Your task to perform on an android device: change the clock display to show seconds Image 0: 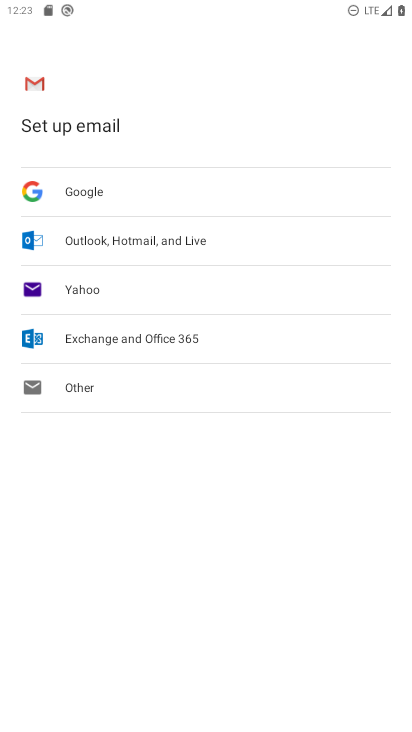
Step 0: press home button
Your task to perform on an android device: change the clock display to show seconds Image 1: 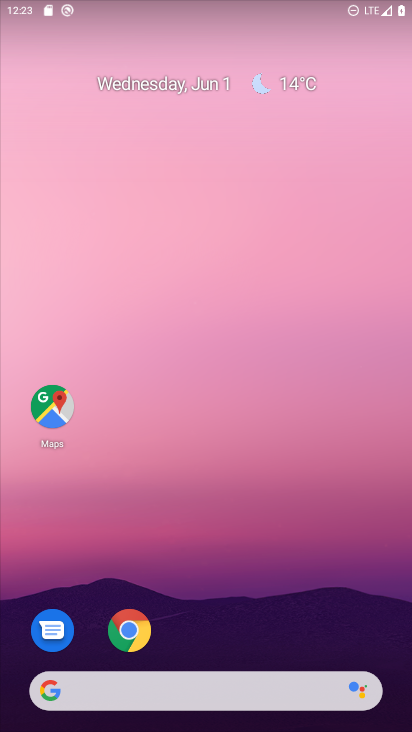
Step 1: drag from (217, 558) to (252, 70)
Your task to perform on an android device: change the clock display to show seconds Image 2: 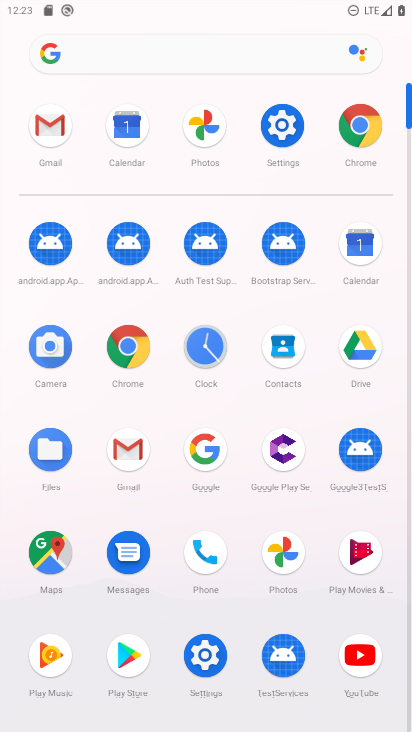
Step 2: click (209, 345)
Your task to perform on an android device: change the clock display to show seconds Image 3: 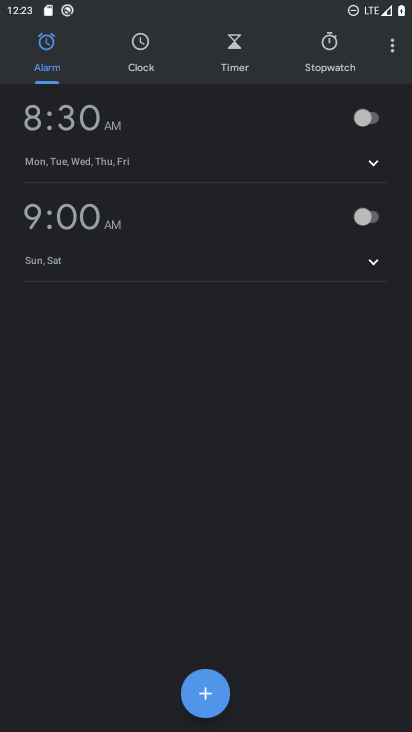
Step 3: click (405, 52)
Your task to perform on an android device: change the clock display to show seconds Image 4: 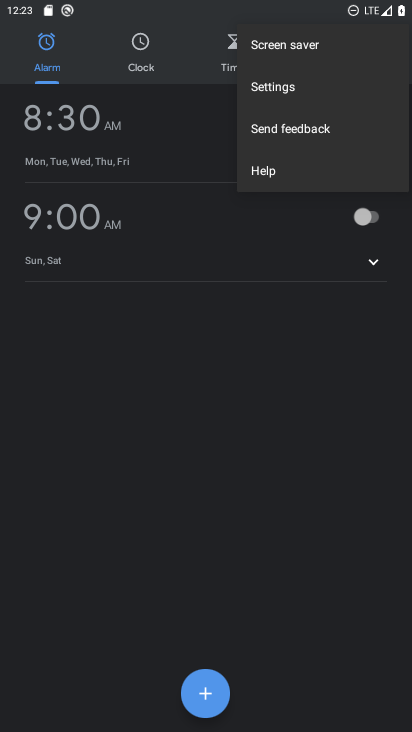
Step 4: click (309, 92)
Your task to perform on an android device: change the clock display to show seconds Image 5: 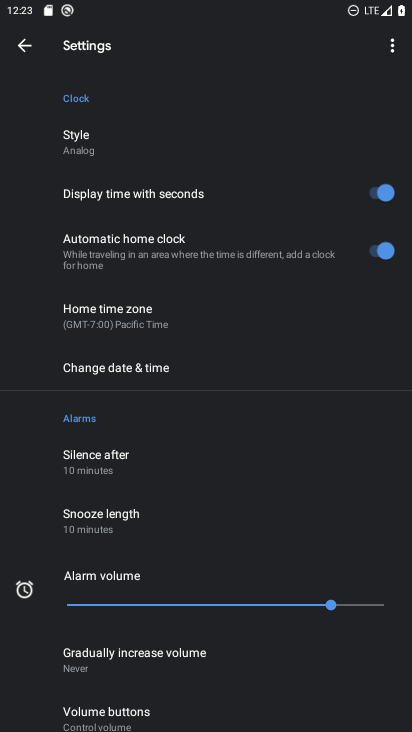
Step 5: task complete